Your task to perform on an android device: Open wifi settings Image 0: 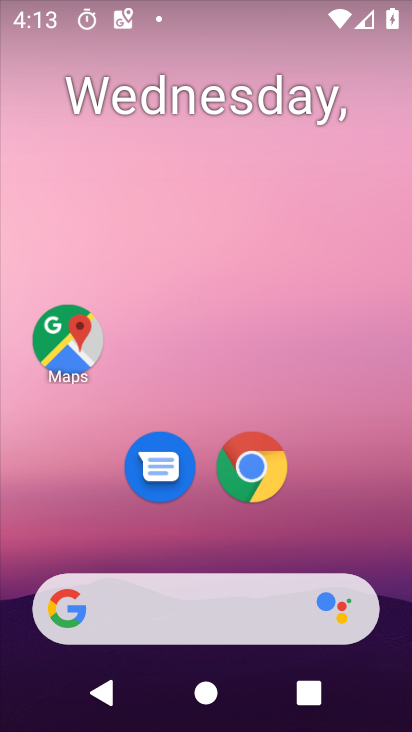
Step 0: drag from (316, 517) to (224, 15)
Your task to perform on an android device: Open wifi settings Image 1: 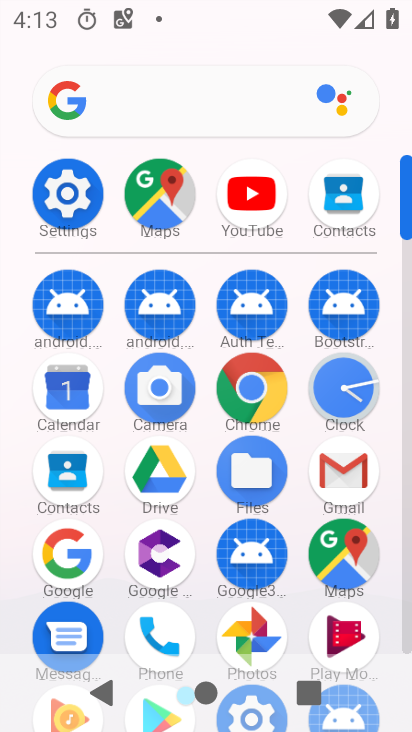
Step 1: click (69, 239)
Your task to perform on an android device: Open wifi settings Image 2: 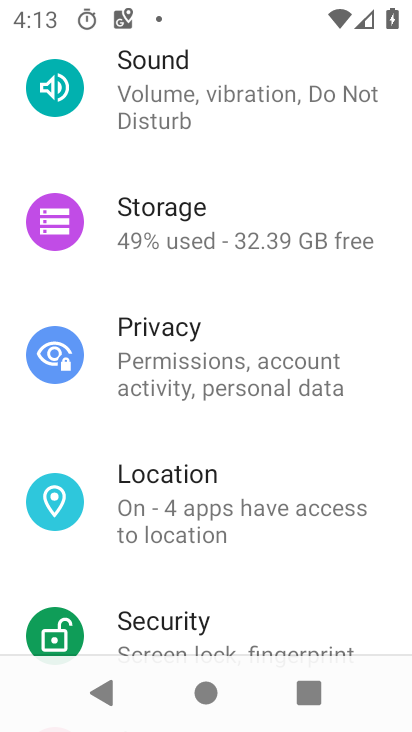
Step 2: drag from (257, 119) to (263, 661)
Your task to perform on an android device: Open wifi settings Image 3: 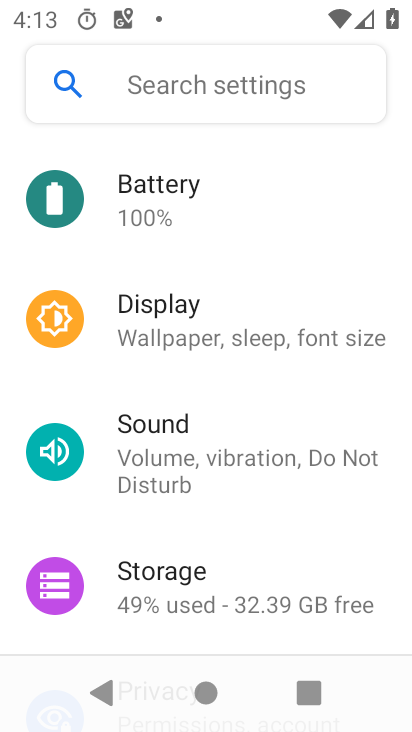
Step 3: drag from (254, 202) to (227, 580)
Your task to perform on an android device: Open wifi settings Image 4: 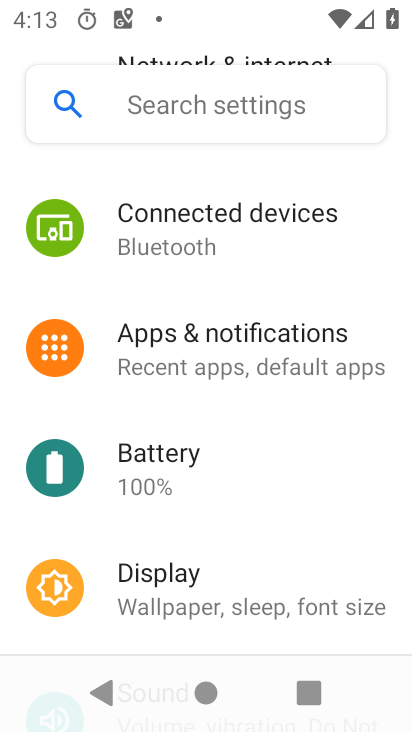
Step 4: drag from (211, 235) to (220, 609)
Your task to perform on an android device: Open wifi settings Image 5: 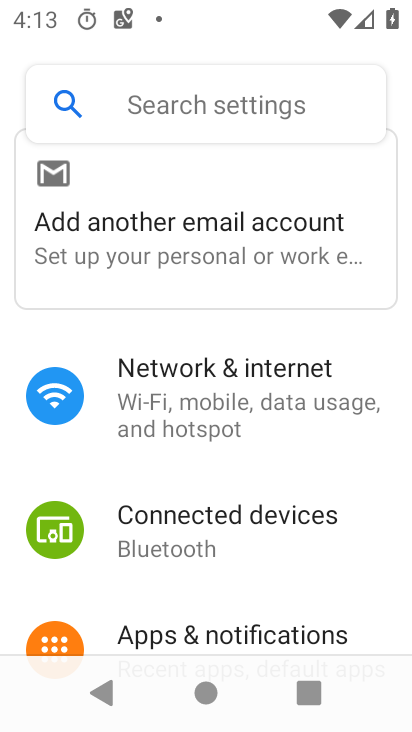
Step 5: click (219, 362)
Your task to perform on an android device: Open wifi settings Image 6: 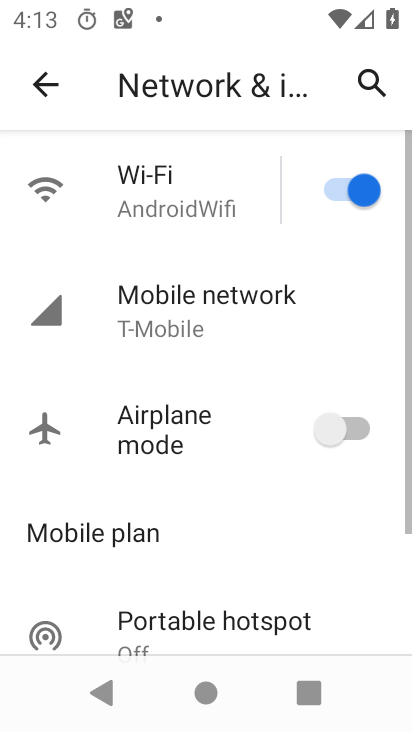
Step 6: click (237, 199)
Your task to perform on an android device: Open wifi settings Image 7: 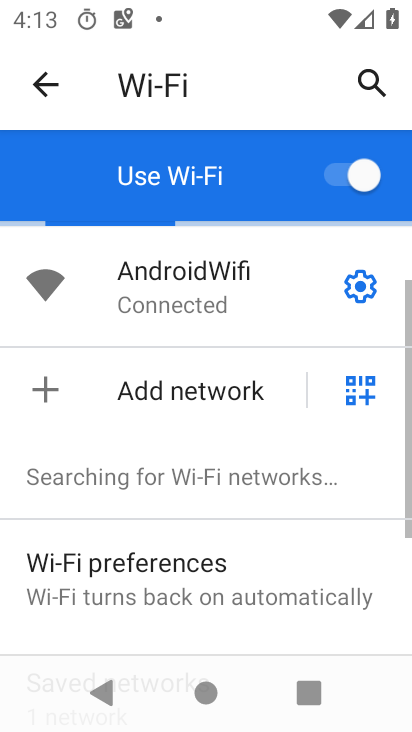
Step 7: task complete